Your task to perform on an android device: empty trash in google photos Image 0: 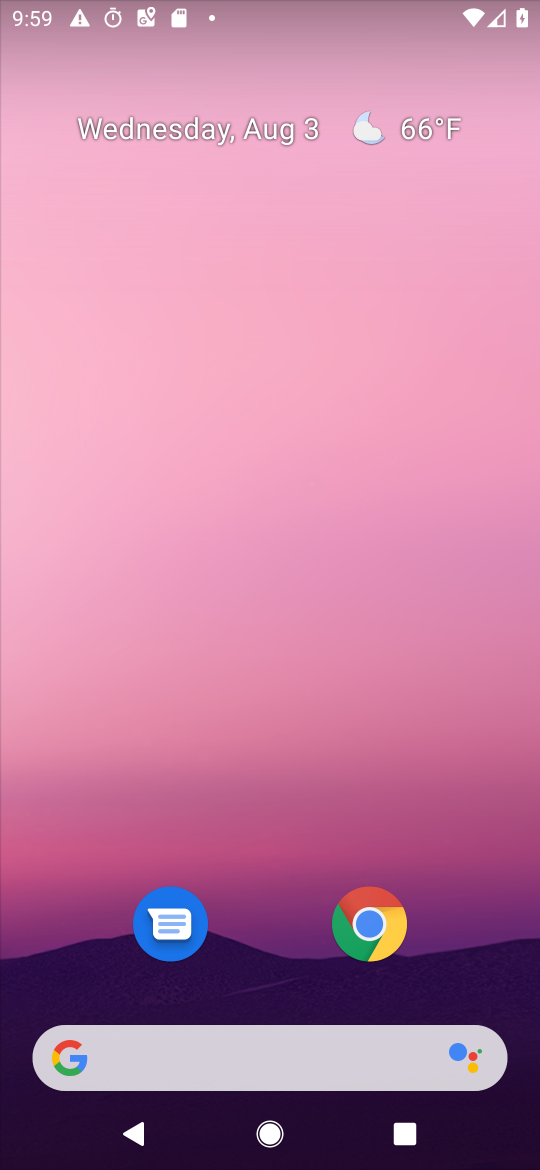
Step 0: drag from (277, 964) to (286, 181)
Your task to perform on an android device: empty trash in google photos Image 1: 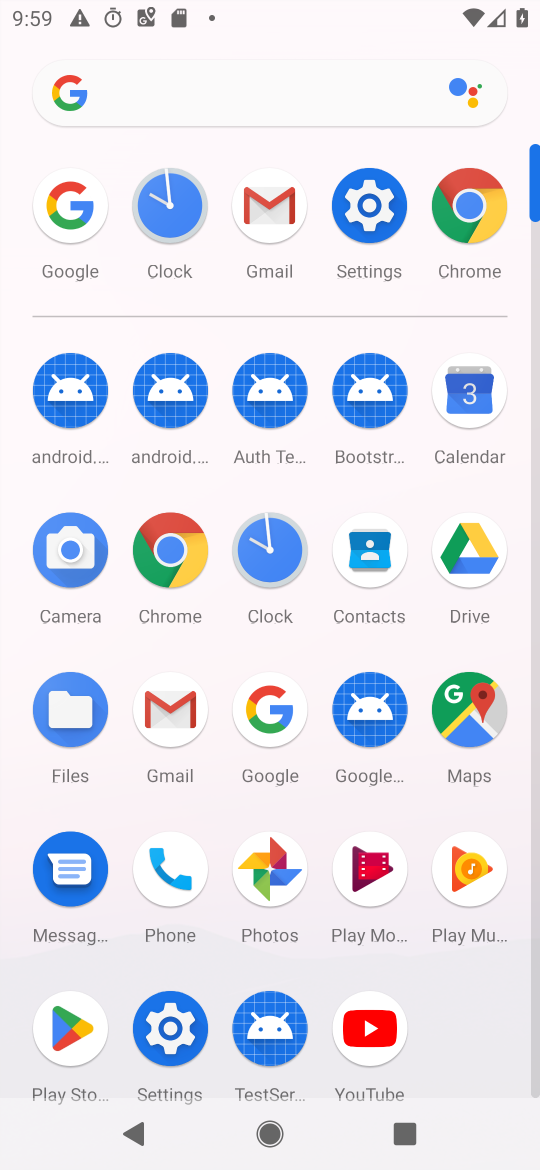
Step 1: click (274, 860)
Your task to perform on an android device: empty trash in google photos Image 2: 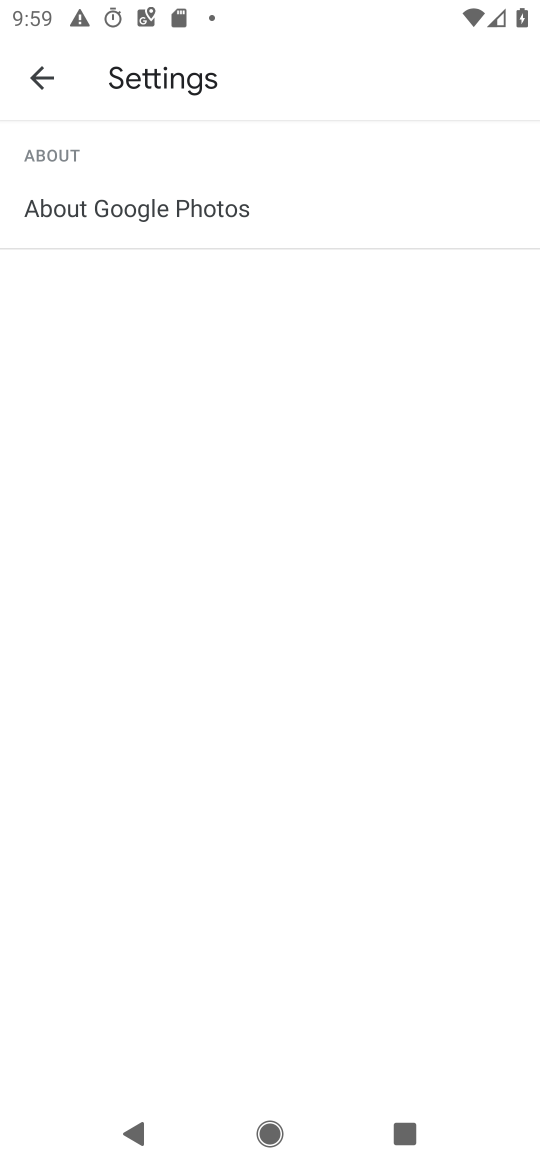
Step 2: click (76, 74)
Your task to perform on an android device: empty trash in google photos Image 3: 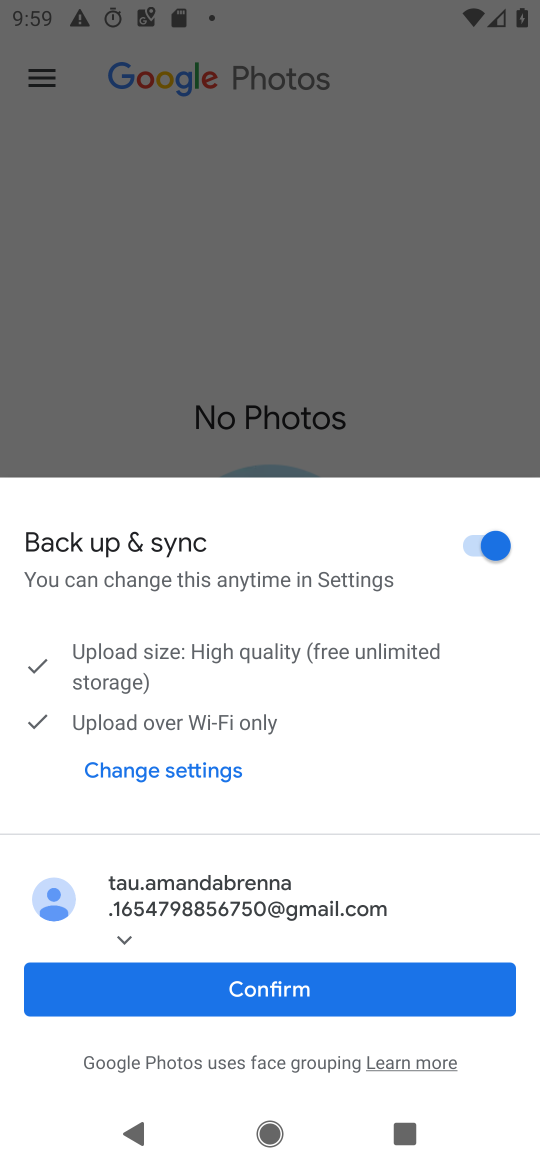
Step 3: click (256, 983)
Your task to perform on an android device: empty trash in google photos Image 4: 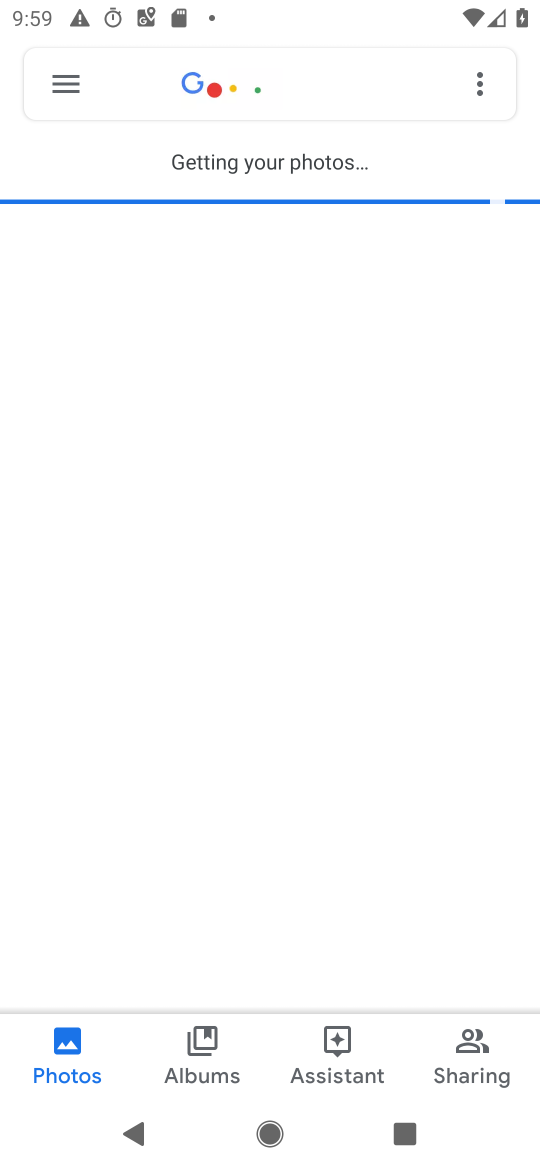
Step 4: click (58, 83)
Your task to perform on an android device: empty trash in google photos Image 5: 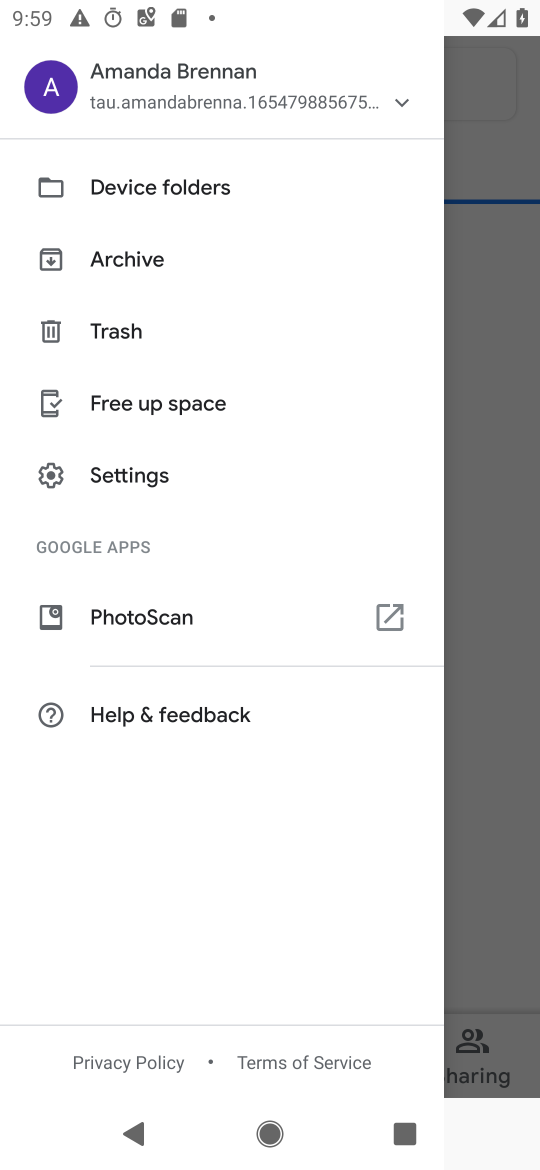
Step 5: click (132, 324)
Your task to perform on an android device: empty trash in google photos Image 6: 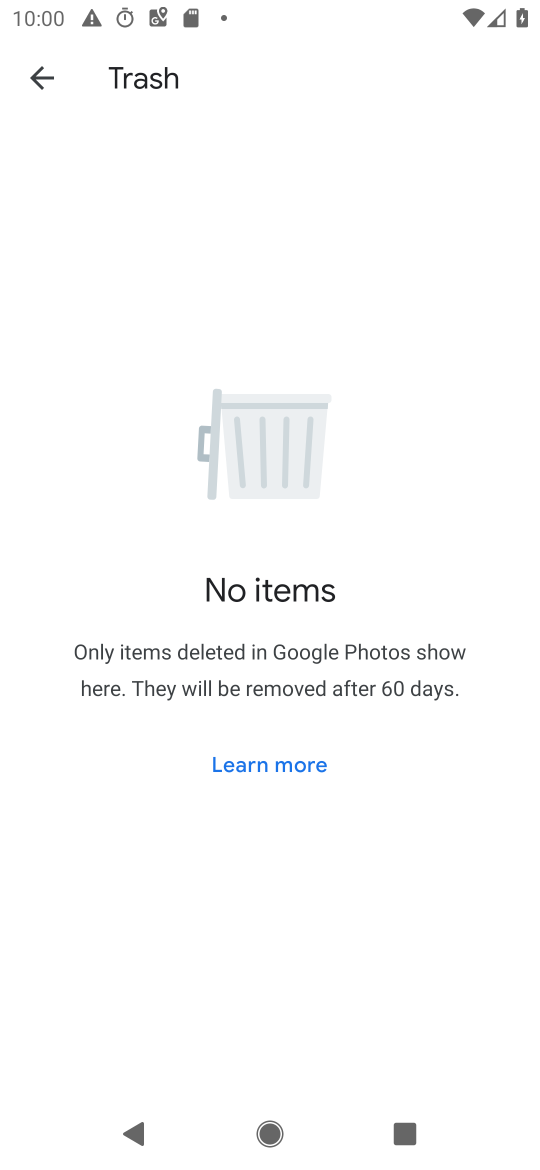
Step 6: task complete